Your task to perform on an android device: stop showing notifications on the lock screen Image 0: 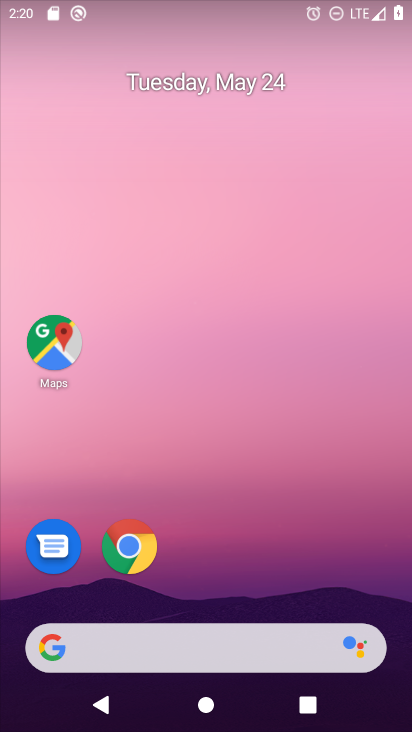
Step 0: drag from (214, 638) to (361, 10)
Your task to perform on an android device: stop showing notifications on the lock screen Image 1: 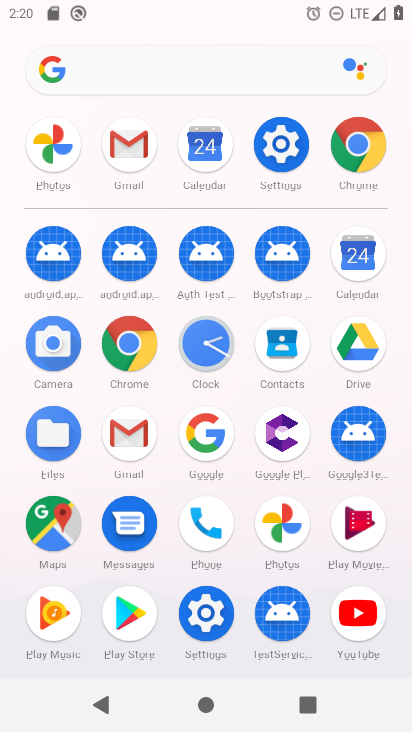
Step 1: click (271, 143)
Your task to perform on an android device: stop showing notifications on the lock screen Image 2: 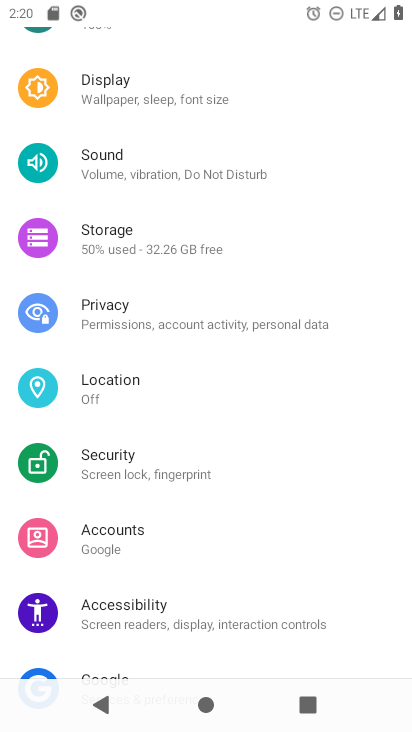
Step 2: drag from (147, 164) to (147, 563)
Your task to perform on an android device: stop showing notifications on the lock screen Image 3: 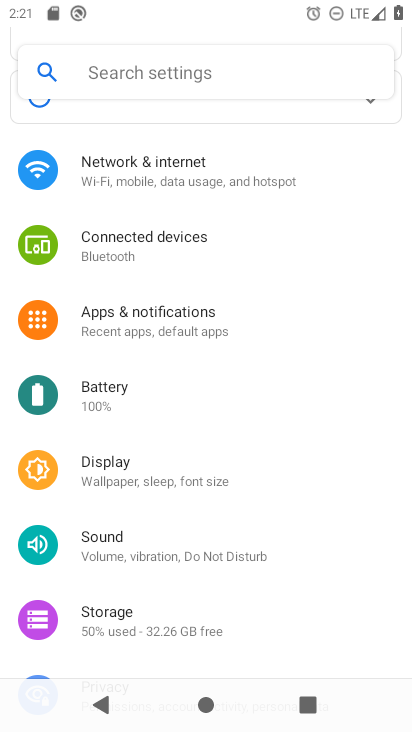
Step 3: click (177, 319)
Your task to perform on an android device: stop showing notifications on the lock screen Image 4: 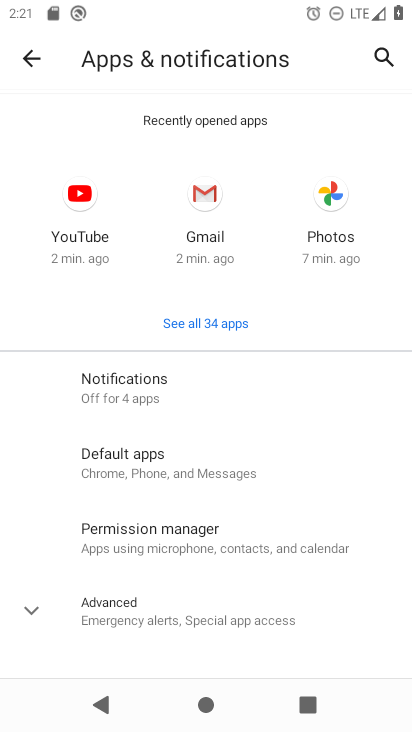
Step 4: click (121, 391)
Your task to perform on an android device: stop showing notifications on the lock screen Image 5: 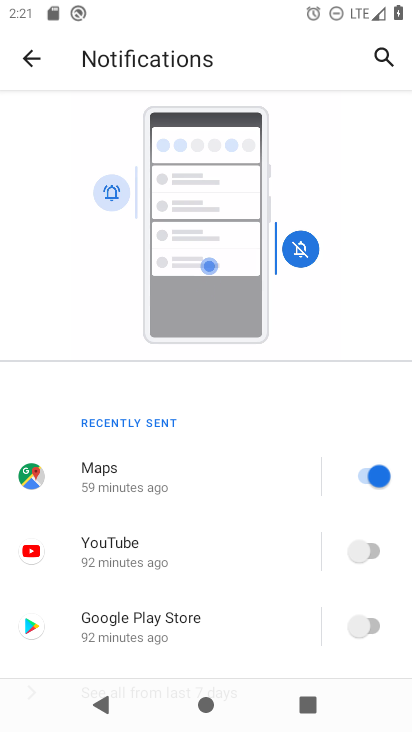
Step 5: drag from (171, 576) to (218, 225)
Your task to perform on an android device: stop showing notifications on the lock screen Image 6: 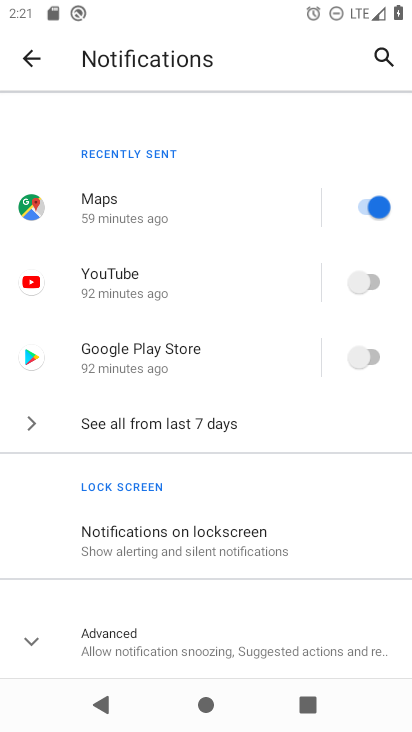
Step 6: click (135, 535)
Your task to perform on an android device: stop showing notifications on the lock screen Image 7: 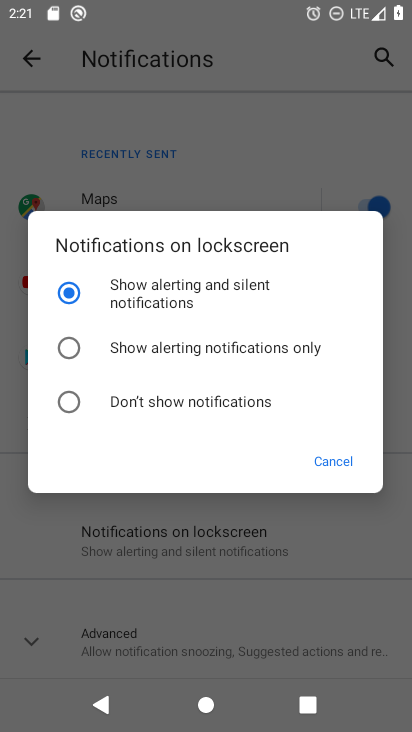
Step 7: click (72, 339)
Your task to perform on an android device: stop showing notifications on the lock screen Image 8: 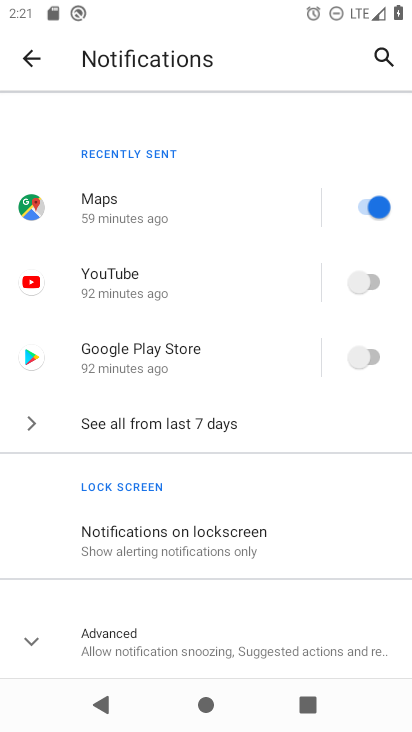
Step 8: task complete